Your task to perform on an android device: Go to network settings Image 0: 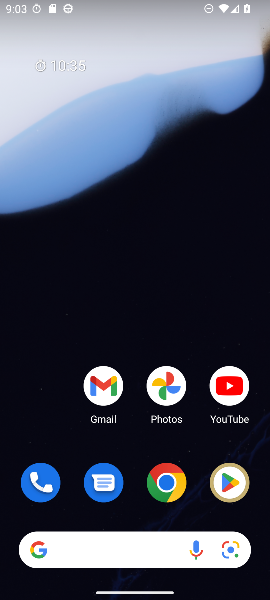
Step 0: drag from (141, 458) to (170, 1)
Your task to perform on an android device: Go to network settings Image 1: 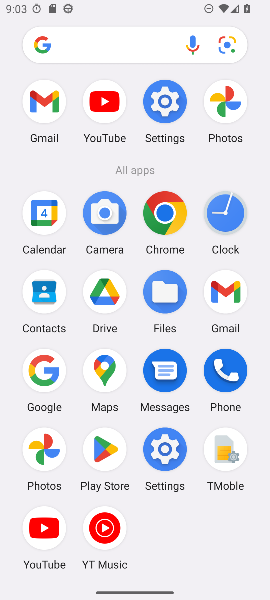
Step 1: click (164, 91)
Your task to perform on an android device: Go to network settings Image 2: 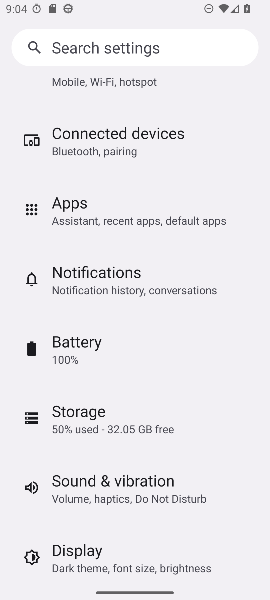
Step 2: drag from (101, 134) to (148, 430)
Your task to perform on an android device: Go to network settings Image 3: 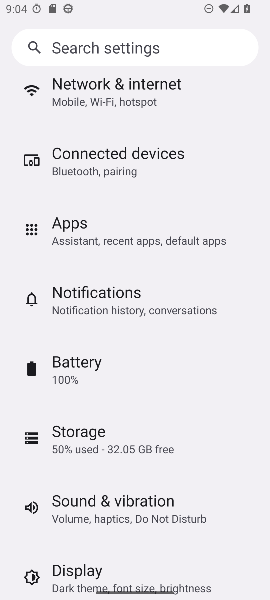
Step 3: click (101, 94)
Your task to perform on an android device: Go to network settings Image 4: 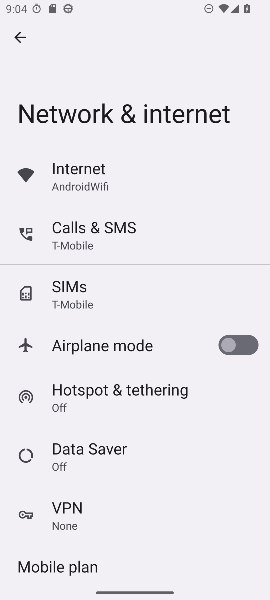
Step 4: task complete